Your task to perform on an android device: Open maps Image 0: 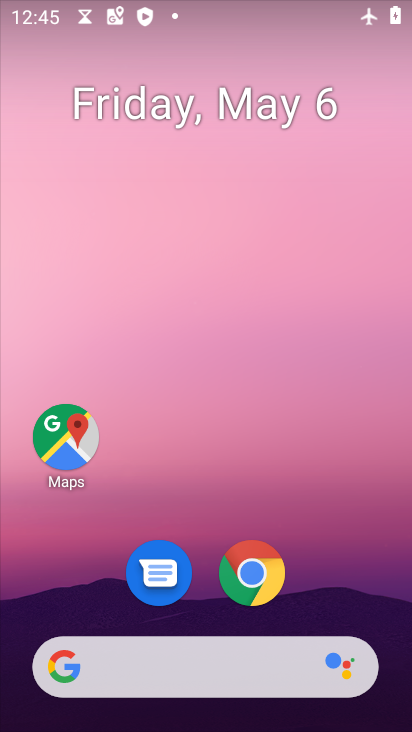
Step 0: drag from (341, 590) to (331, 264)
Your task to perform on an android device: Open maps Image 1: 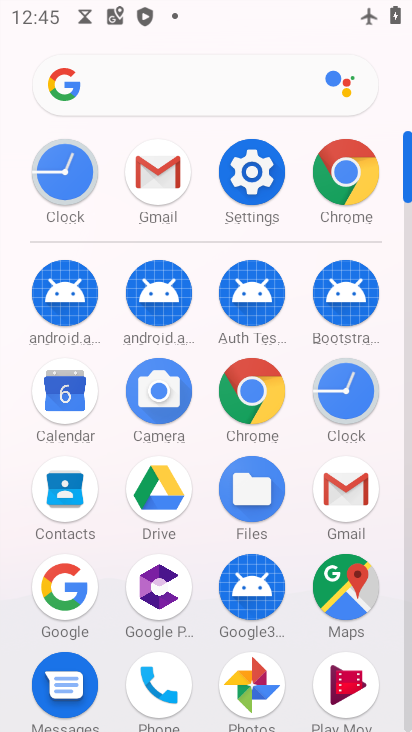
Step 1: click (354, 589)
Your task to perform on an android device: Open maps Image 2: 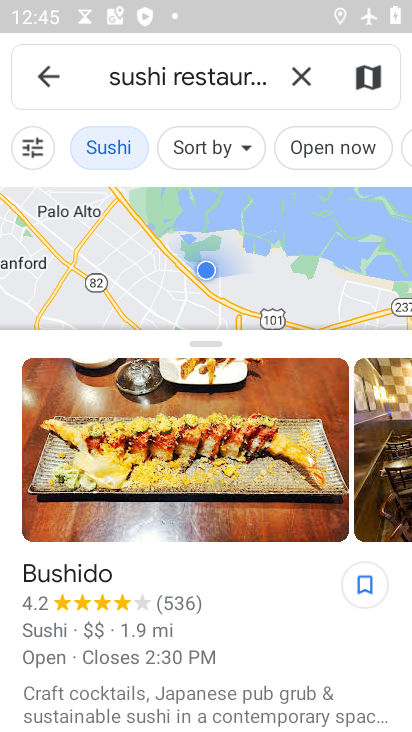
Step 2: task complete